Your task to perform on an android device: Go to internet settings Image 0: 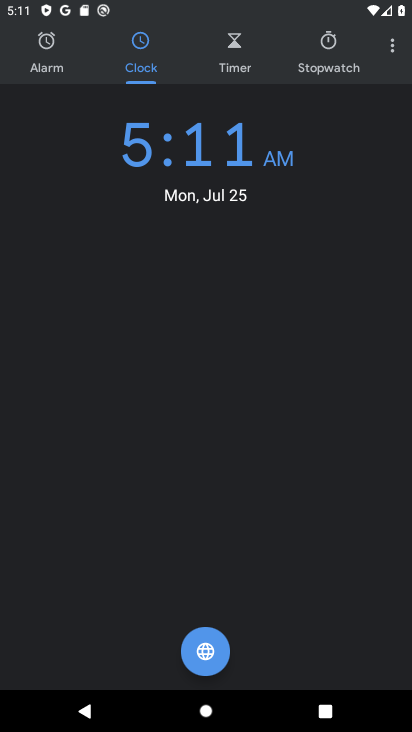
Step 0: press home button
Your task to perform on an android device: Go to internet settings Image 1: 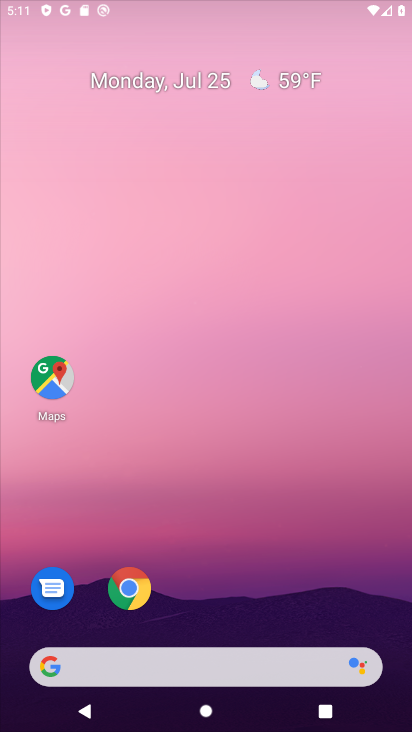
Step 1: press home button
Your task to perform on an android device: Go to internet settings Image 2: 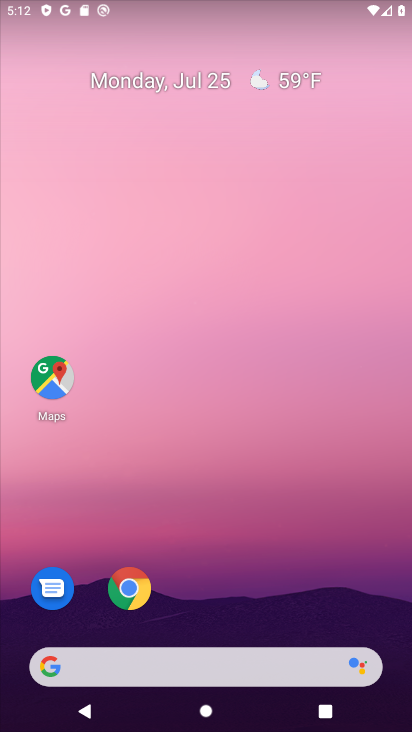
Step 2: drag from (255, 460) to (254, 351)
Your task to perform on an android device: Go to internet settings Image 3: 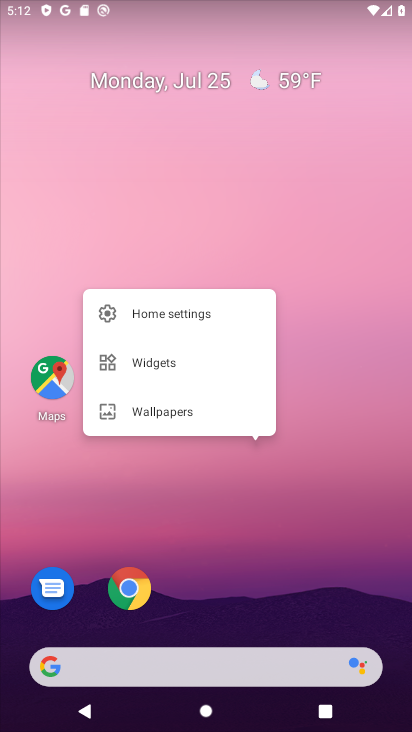
Step 3: click (293, 481)
Your task to perform on an android device: Go to internet settings Image 4: 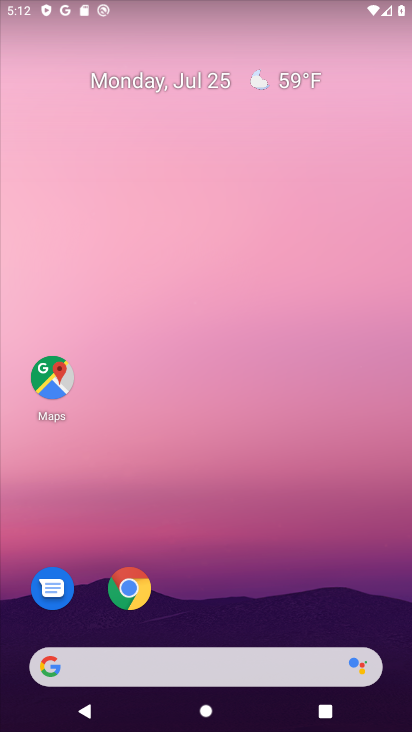
Step 4: drag from (263, 534) to (215, 154)
Your task to perform on an android device: Go to internet settings Image 5: 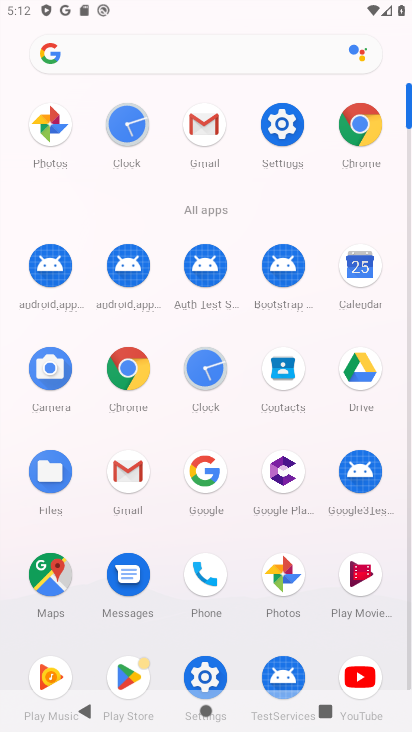
Step 5: click (273, 129)
Your task to perform on an android device: Go to internet settings Image 6: 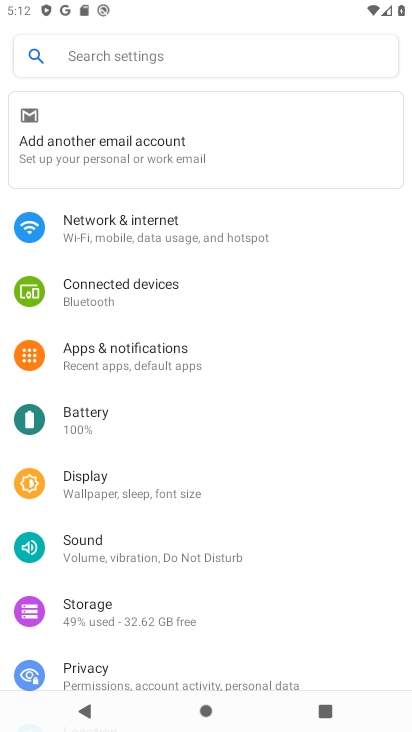
Step 6: click (196, 235)
Your task to perform on an android device: Go to internet settings Image 7: 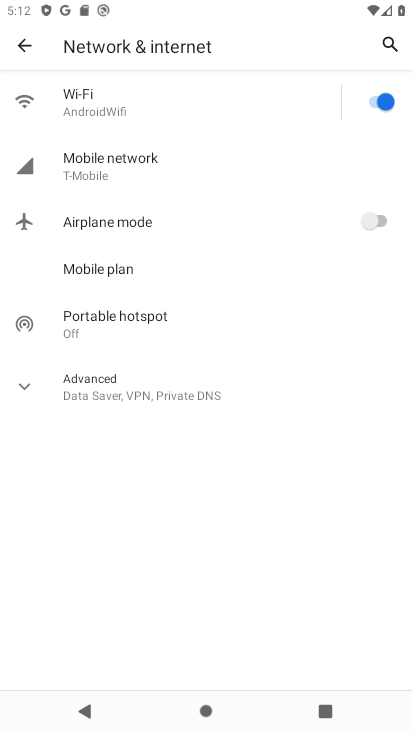
Step 7: task complete